Your task to perform on an android device: open wifi settings Image 0: 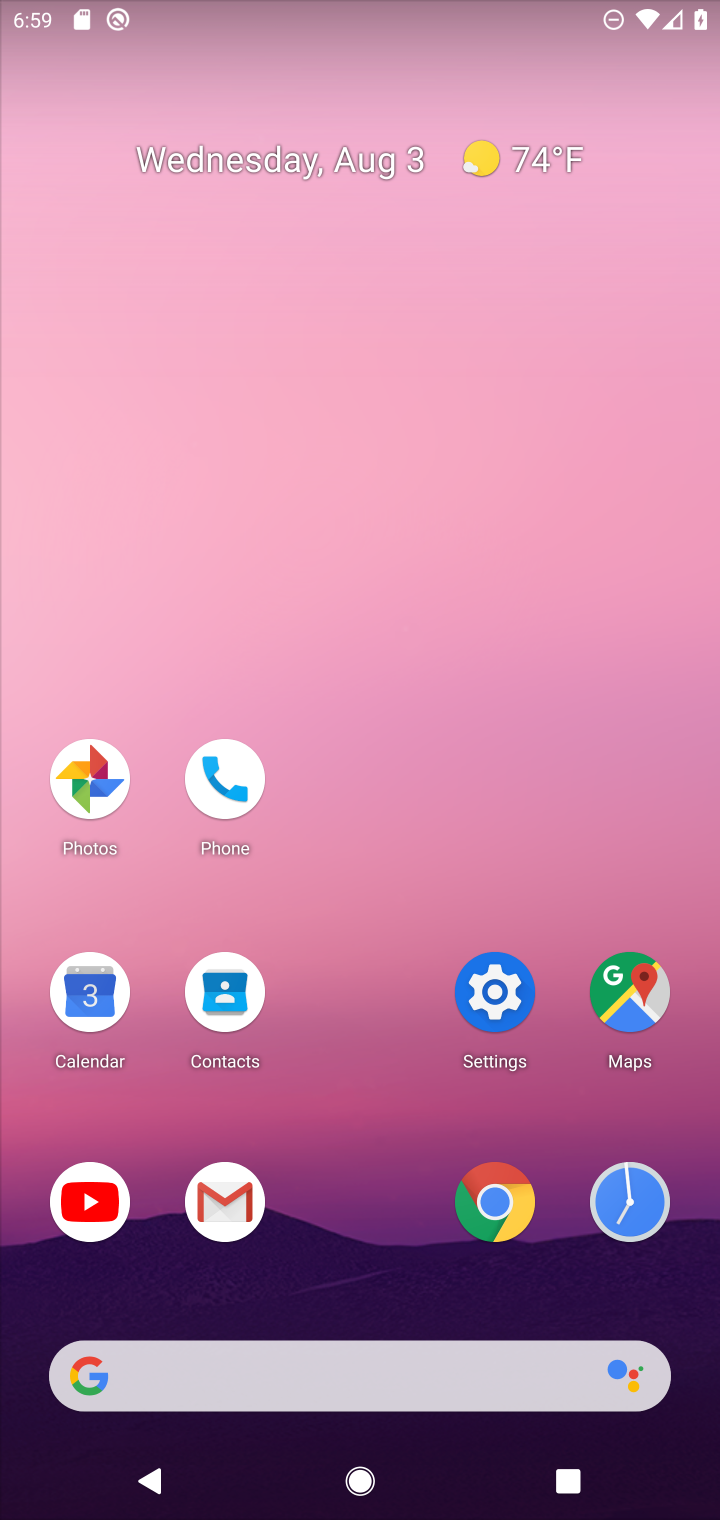
Step 0: click (497, 986)
Your task to perform on an android device: open wifi settings Image 1: 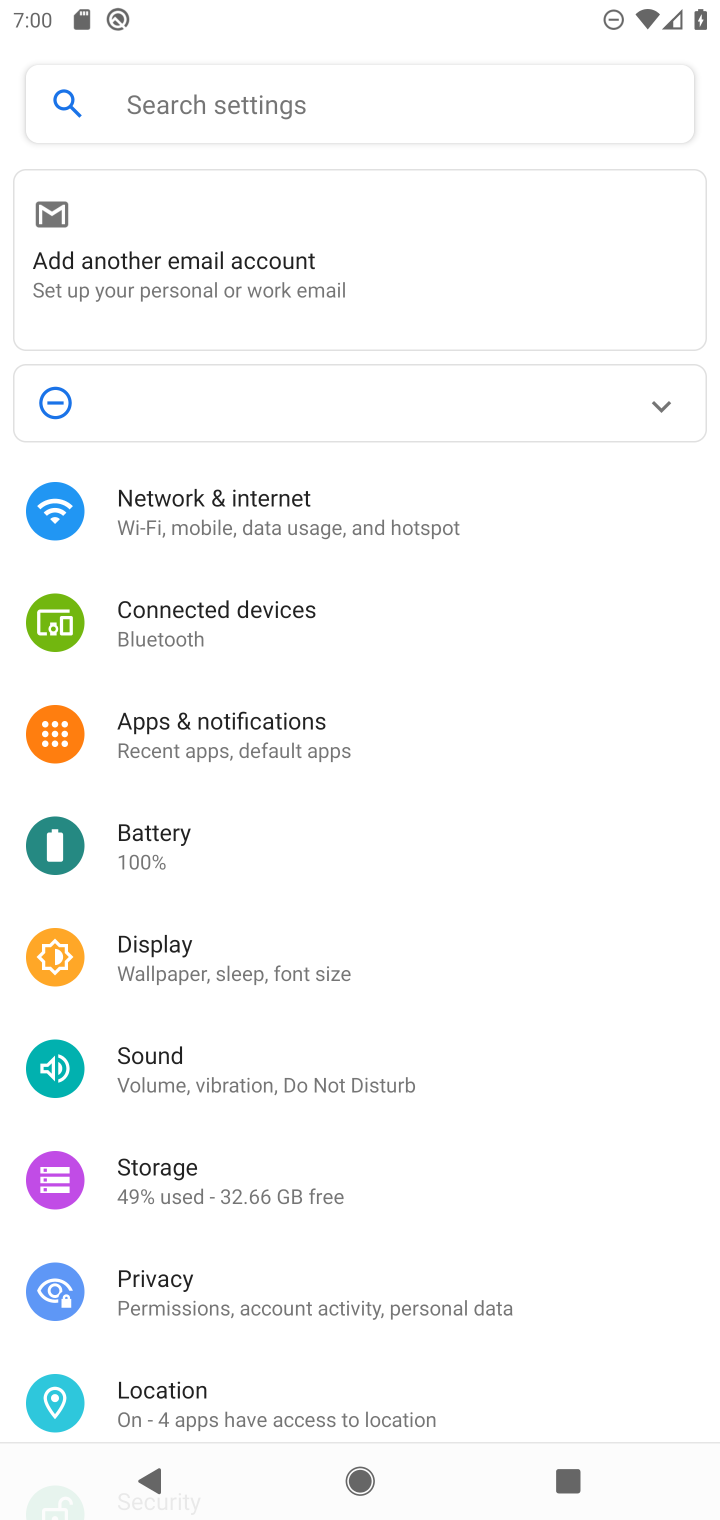
Step 1: click (209, 494)
Your task to perform on an android device: open wifi settings Image 2: 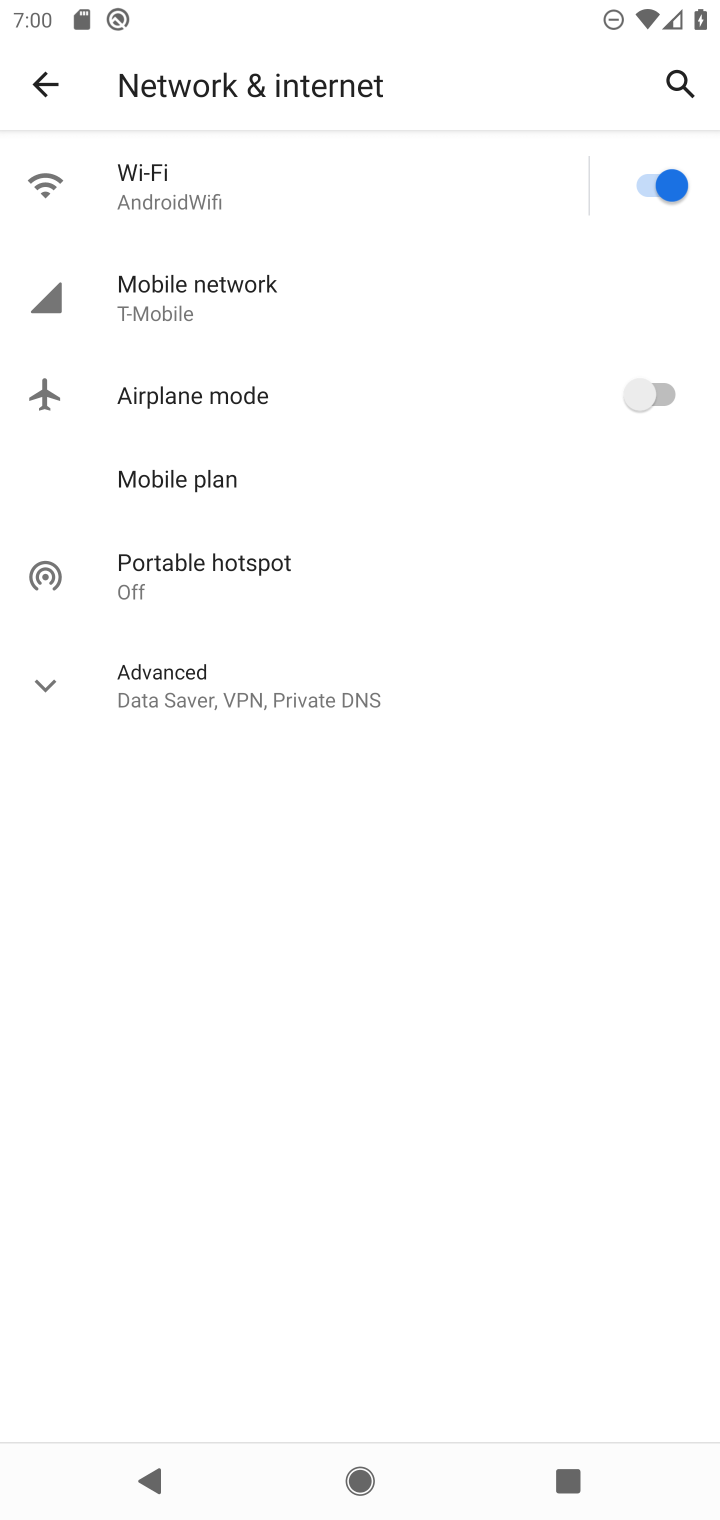
Step 2: click (139, 163)
Your task to perform on an android device: open wifi settings Image 3: 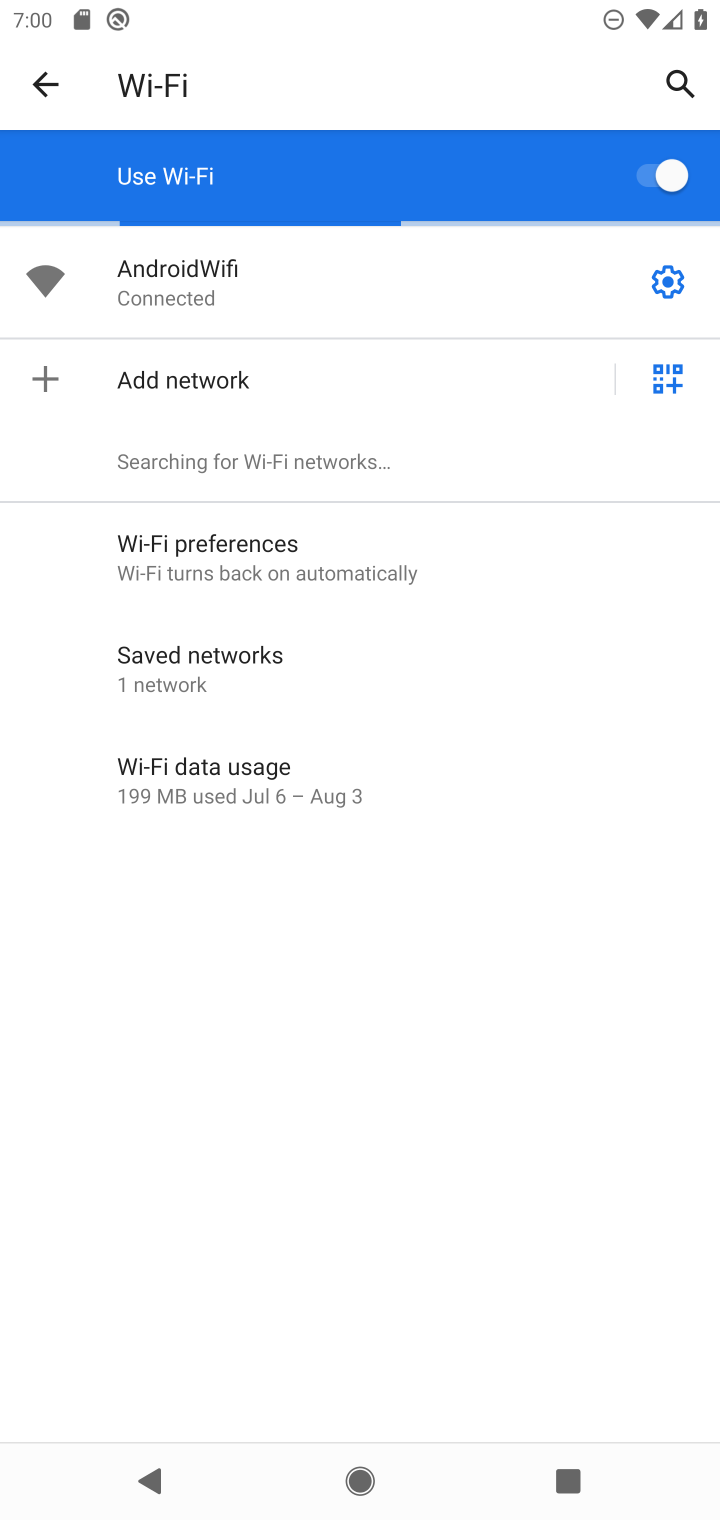
Step 3: task complete